Your task to perform on an android device: Open Yahoo.com Image 0: 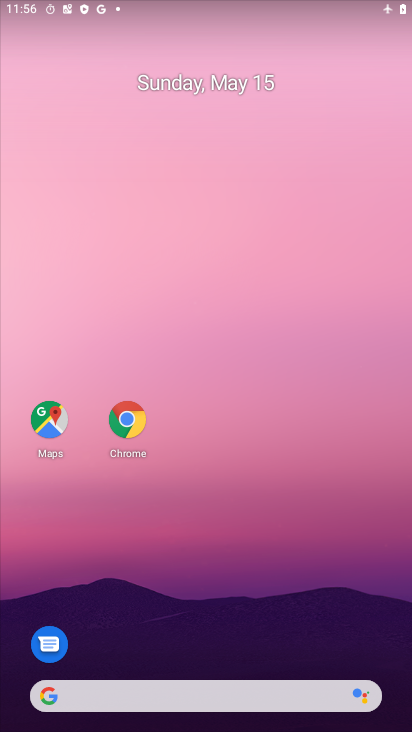
Step 0: drag from (172, 668) to (139, 193)
Your task to perform on an android device: Open Yahoo.com Image 1: 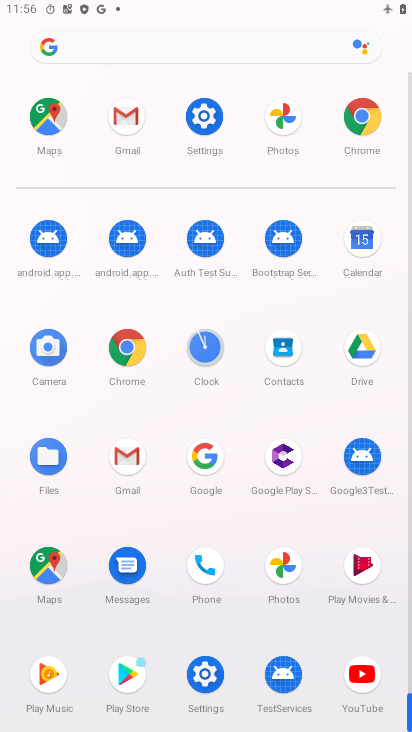
Step 1: click (358, 115)
Your task to perform on an android device: Open Yahoo.com Image 2: 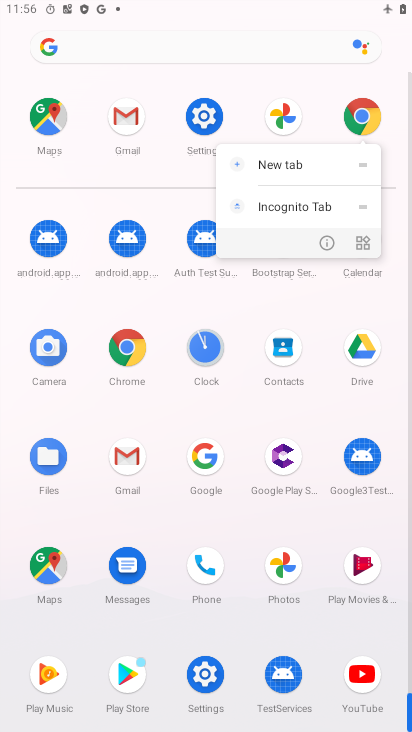
Step 2: click (314, 246)
Your task to perform on an android device: Open Yahoo.com Image 3: 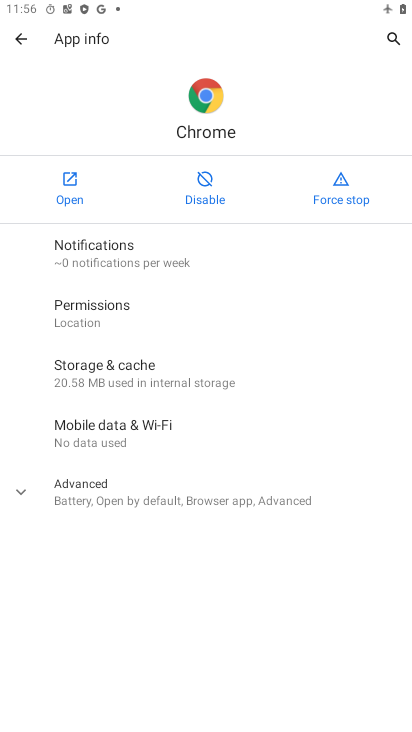
Step 3: click (68, 181)
Your task to perform on an android device: Open Yahoo.com Image 4: 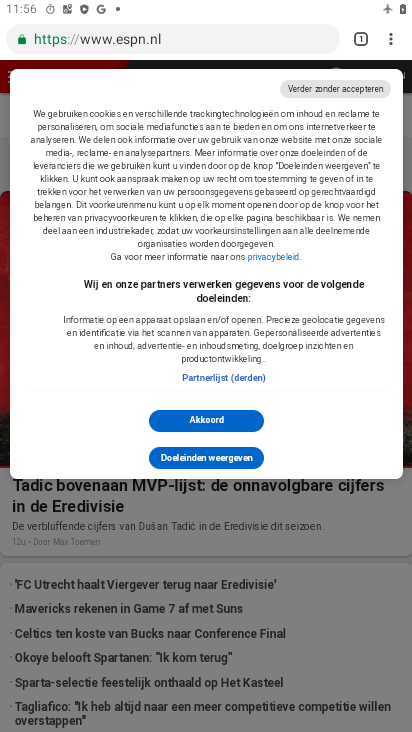
Step 4: press home button
Your task to perform on an android device: Open Yahoo.com Image 5: 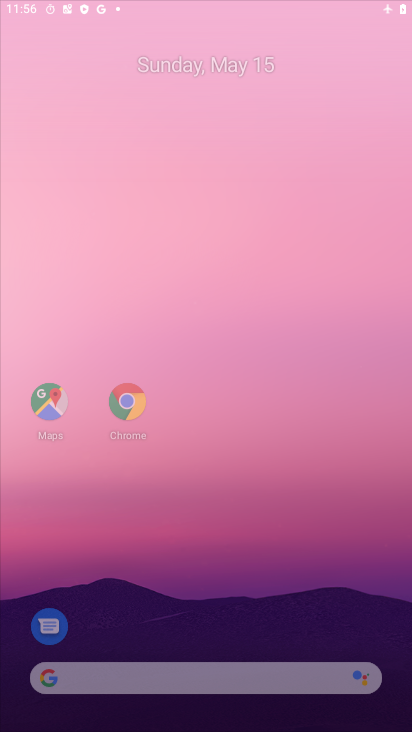
Step 5: drag from (199, 614) to (260, 86)
Your task to perform on an android device: Open Yahoo.com Image 6: 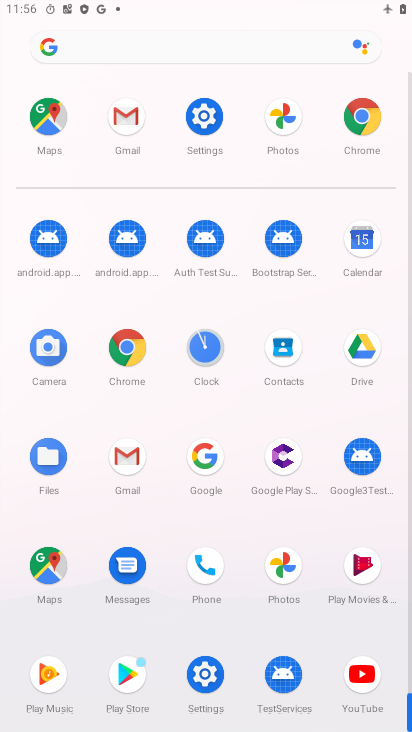
Step 6: click (363, 131)
Your task to perform on an android device: Open Yahoo.com Image 7: 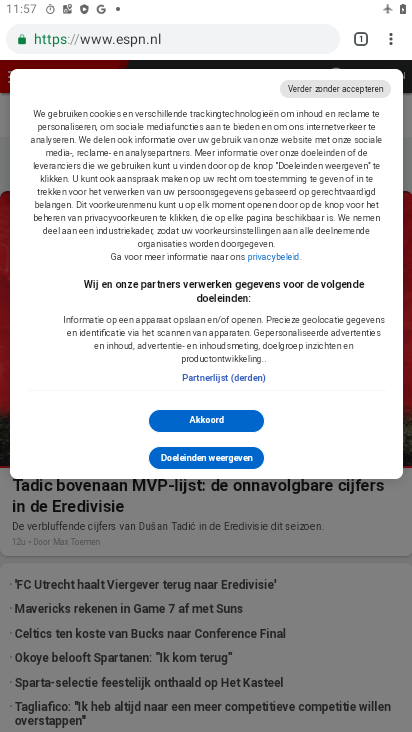
Step 7: click (214, 54)
Your task to perform on an android device: Open Yahoo.com Image 8: 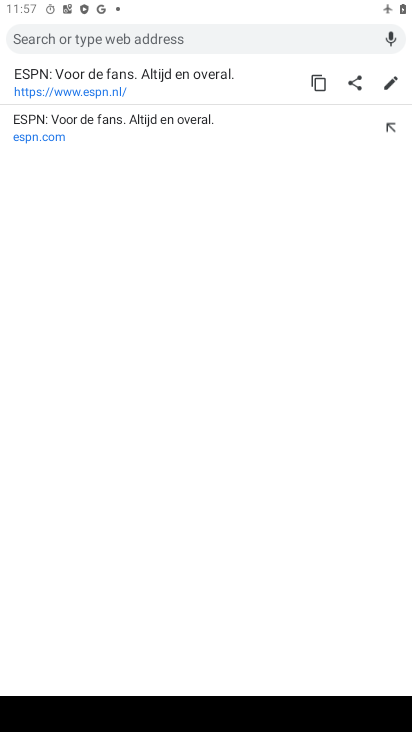
Step 8: type "yahoo"
Your task to perform on an android device: Open Yahoo.com Image 9: 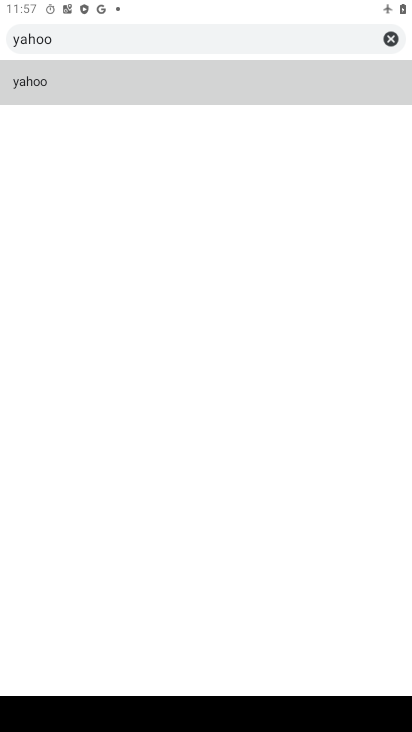
Step 9: click (29, 87)
Your task to perform on an android device: Open Yahoo.com Image 10: 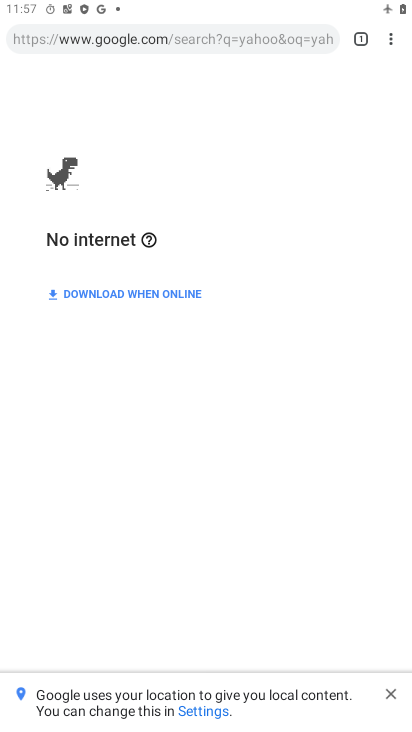
Step 10: task complete